Your task to perform on an android device: clear history in the chrome app Image 0: 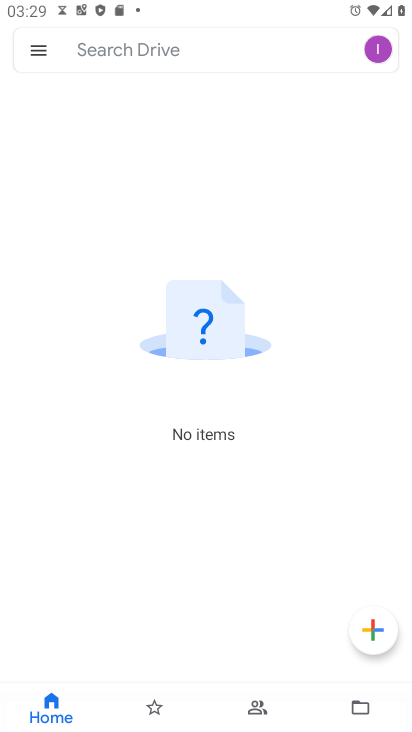
Step 0: press home button
Your task to perform on an android device: clear history in the chrome app Image 1: 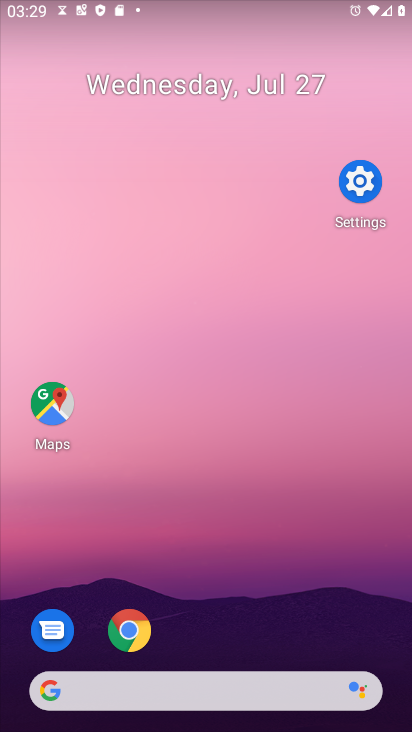
Step 1: drag from (244, 589) to (263, 160)
Your task to perform on an android device: clear history in the chrome app Image 2: 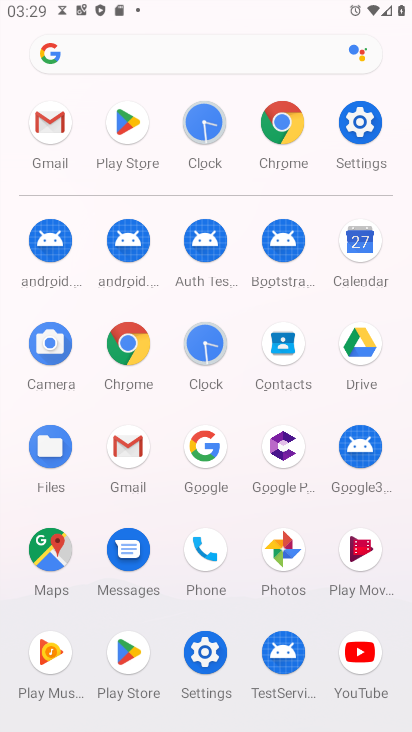
Step 2: click (281, 129)
Your task to perform on an android device: clear history in the chrome app Image 3: 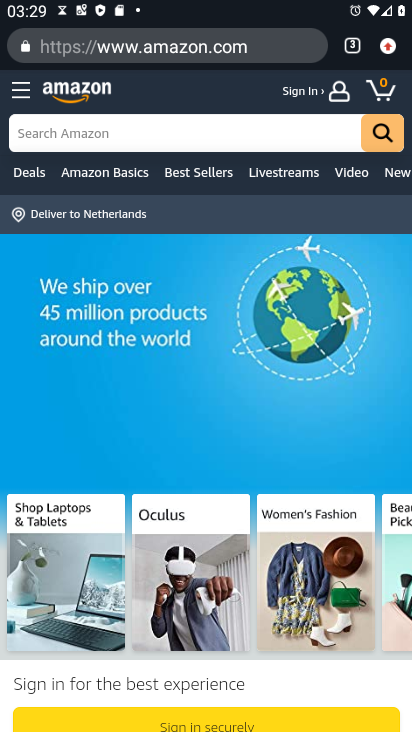
Step 3: drag from (393, 52) to (228, 341)
Your task to perform on an android device: clear history in the chrome app Image 4: 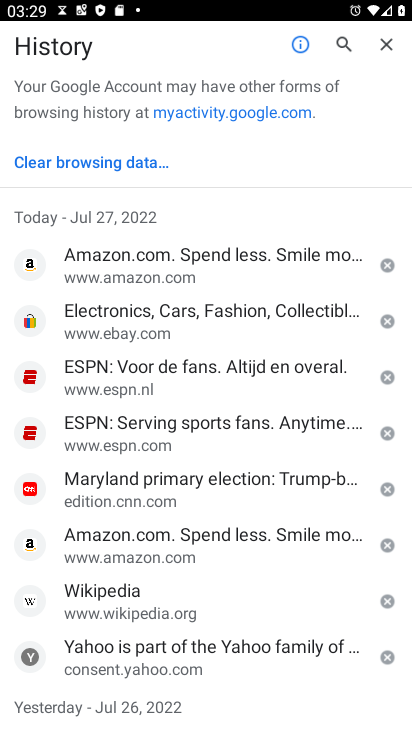
Step 4: click (72, 159)
Your task to perform on an android device: clear history in the chrome app Image 5: 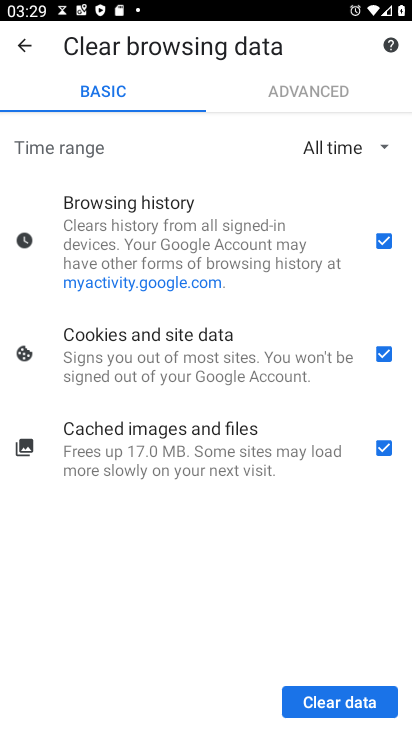
Step 5: click (369, 701)
Your task to perform on an android device: clear history in the chrome app Image 6: 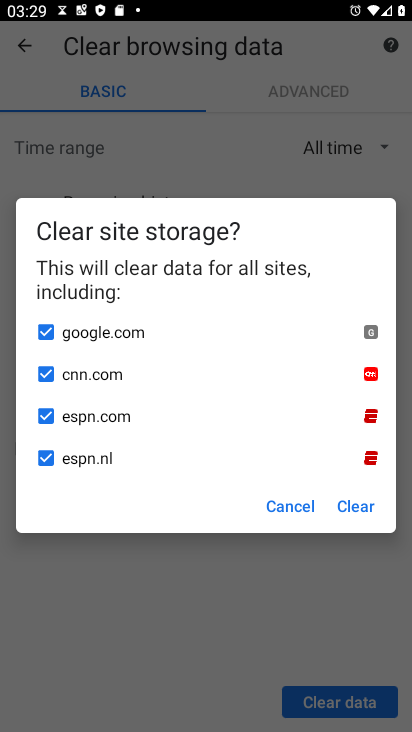
Step 6: click (369, 516)
Your task to perform on an android device: clear history in the chrome app Image 7: 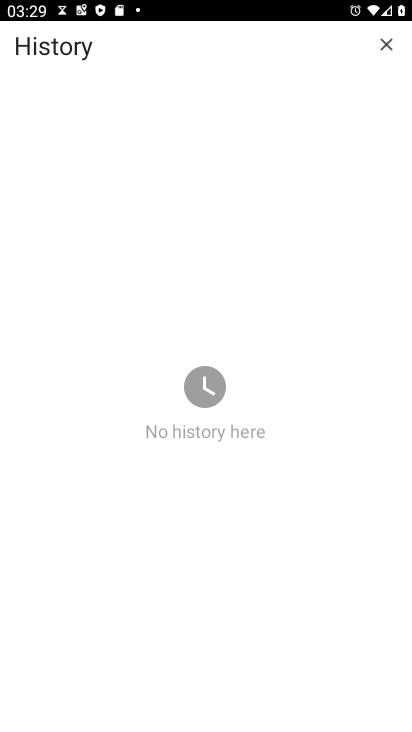
Step 7: task complete